Your task to perform on an android device: allow notifications from all sites in the chrome app Image 0: 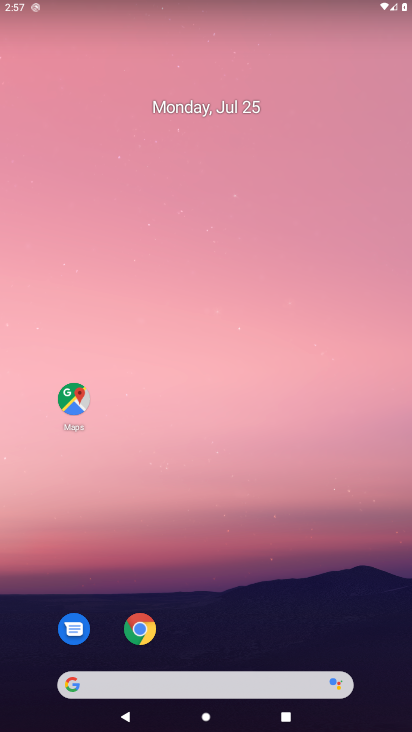
Step 0: click (133, 634)
Your task to perform on an android device: allow notifications from all sites in the chrome app Image 1: 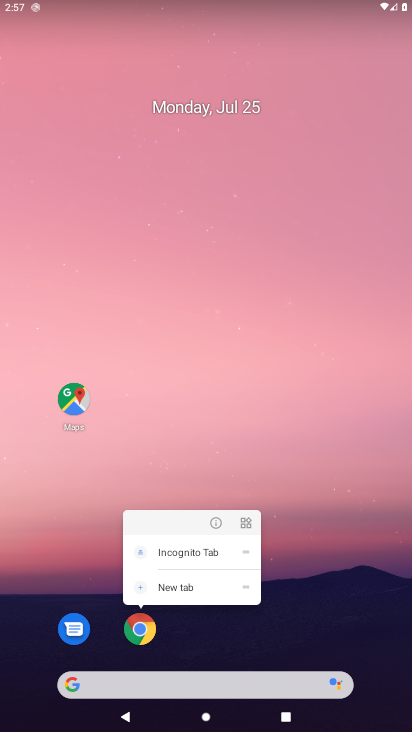
Step 1: click (143, 627)
Your task to perform on an android device: allow notifications from all sites in the chrome app Image 2: 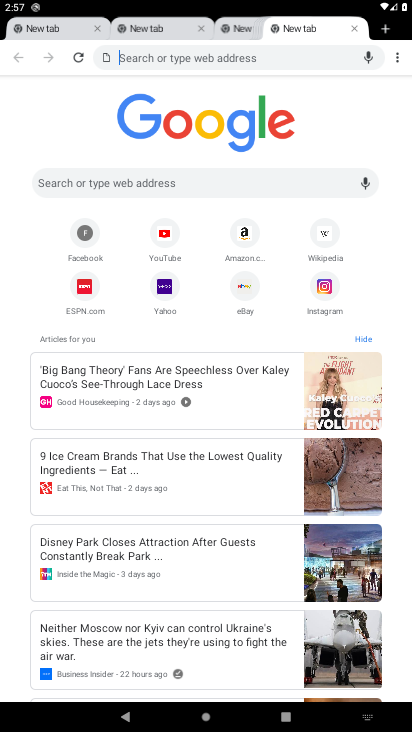
Step 2: click (391, 57)
Your task to perform on an android device: allow notifications from all sites in the chrome app Image 3: 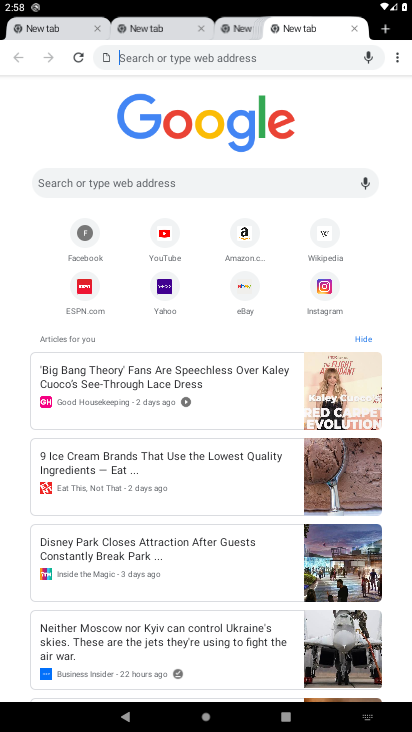
Step 3: click (398, 58)
Your task to perform on an android device: allow notifications from all sites in the chrome app Image 4: 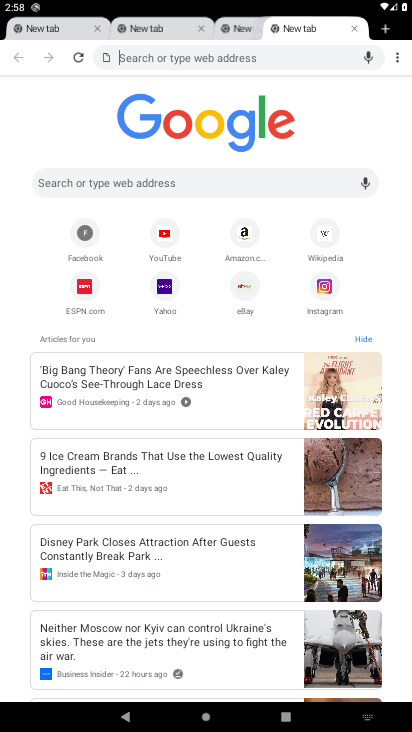
Step 4: click (395, 55)
Your task to perform on an android device: allow notifications from all sites in the chrome app Image 5: 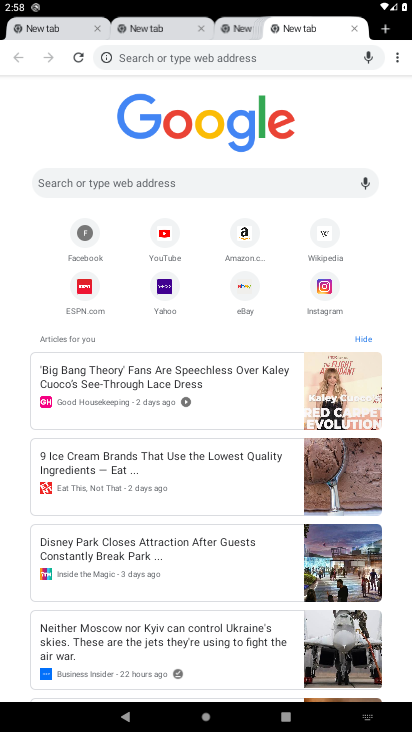
Step 5: task complete